Your task to perform on an android device: toggle airplane mode Image 0: 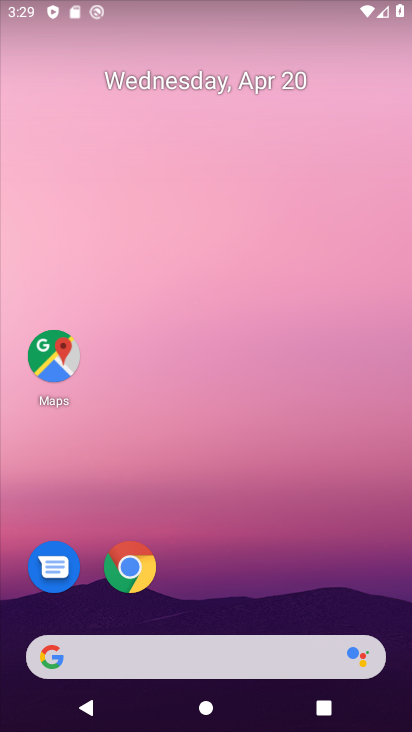
Step 0: drag from (297, 567) to (281, 44)
Your task to perform on an android device: toggle airplane mode Image 1: 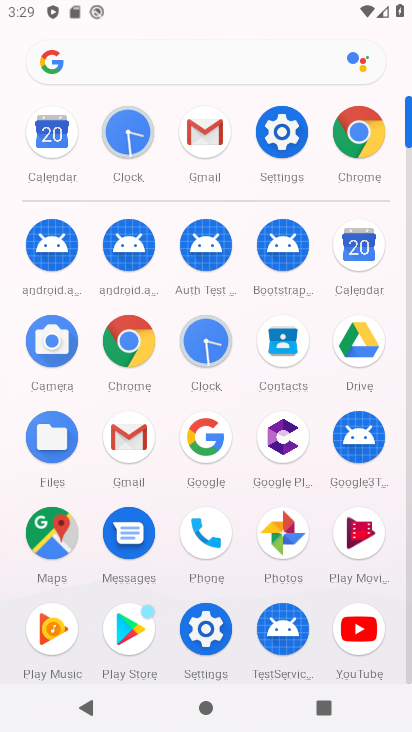
Step 1: click (283, 123)
Your task to perform on an android device: toggle airplane mode Image 2: 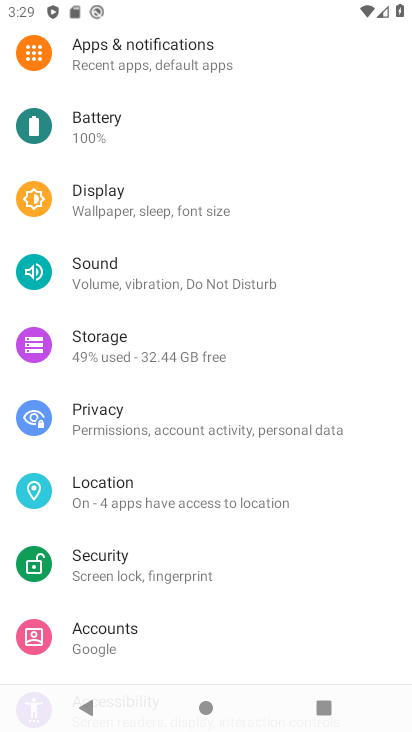
Step 2: drag from (328, 169) to (312, 629)
Your task to perform on an android device: toggle airplane mode Image 3: 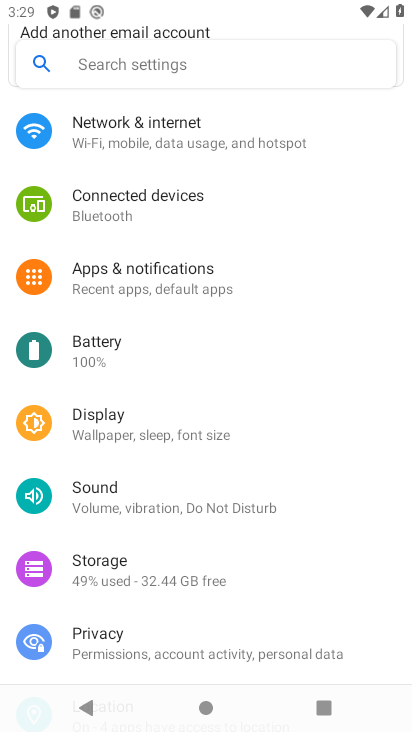
Step 3: click (302, 148)
Your task to perform on an android device: toggle airplane mode Image 4: 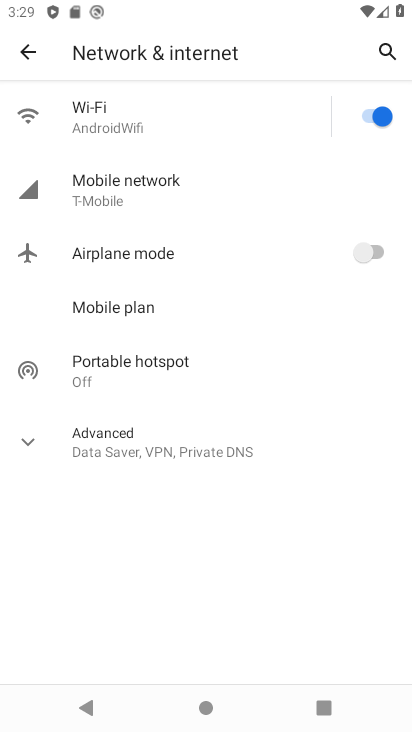
Step 4: click (318, 257)
Your task to perform on an android device: toggle airplane mode Image 5: 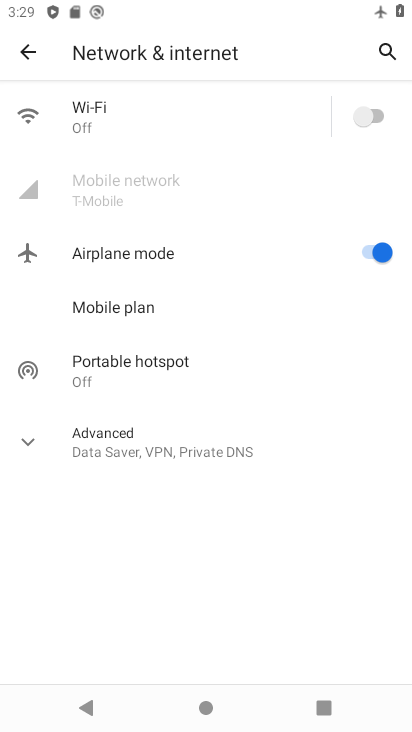
Step 5: task complete